Your task to perform on an android device: Check the news Image 0: 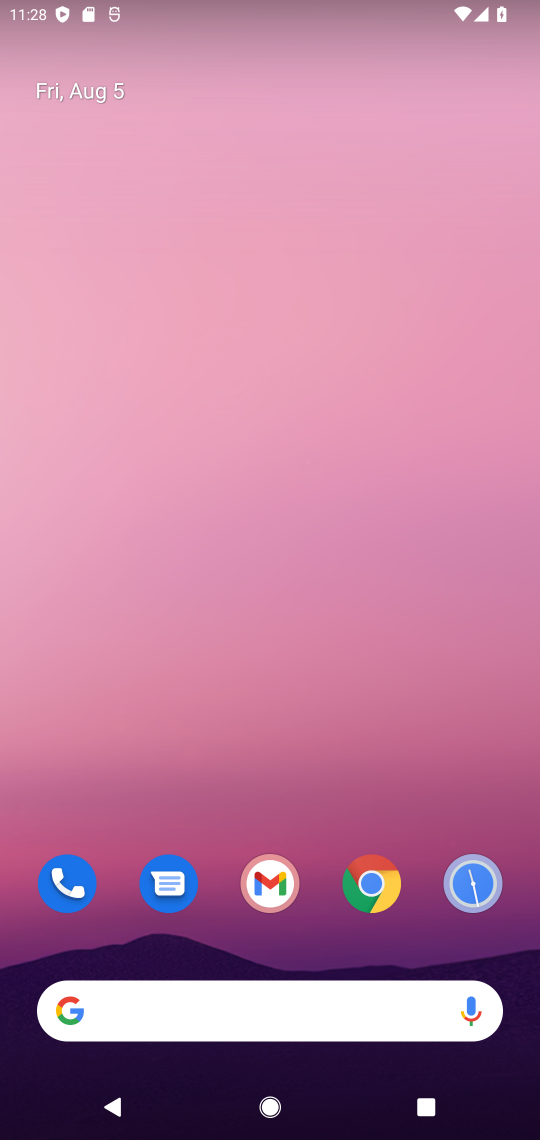
Step 0: click (289, 1013)
Your task to perform on an android device: Check the news Image 1: 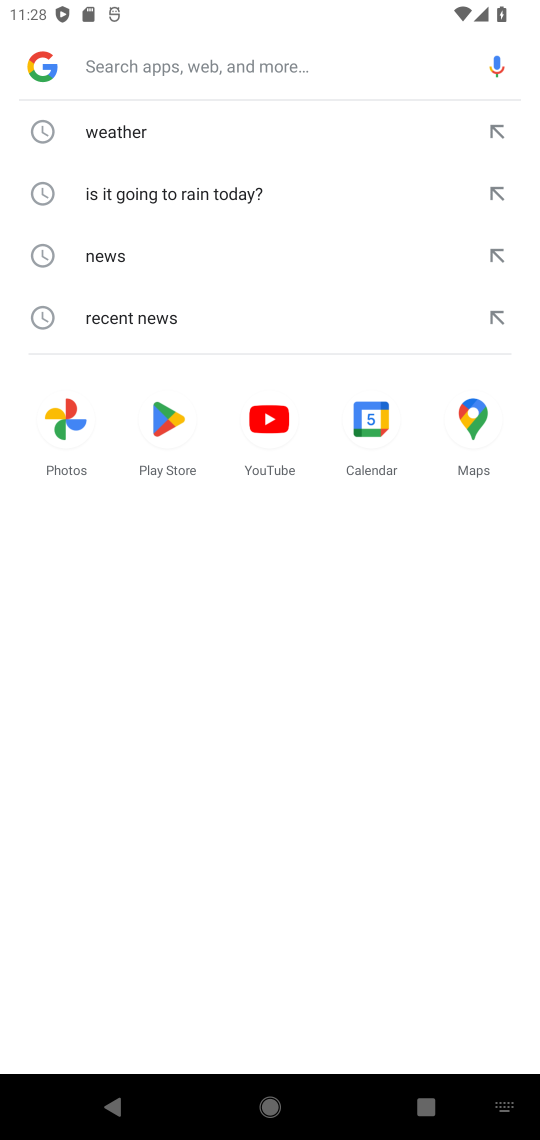
Step 1: click (141, 260)
Your task to perform on an android device: Check the news Image 2: 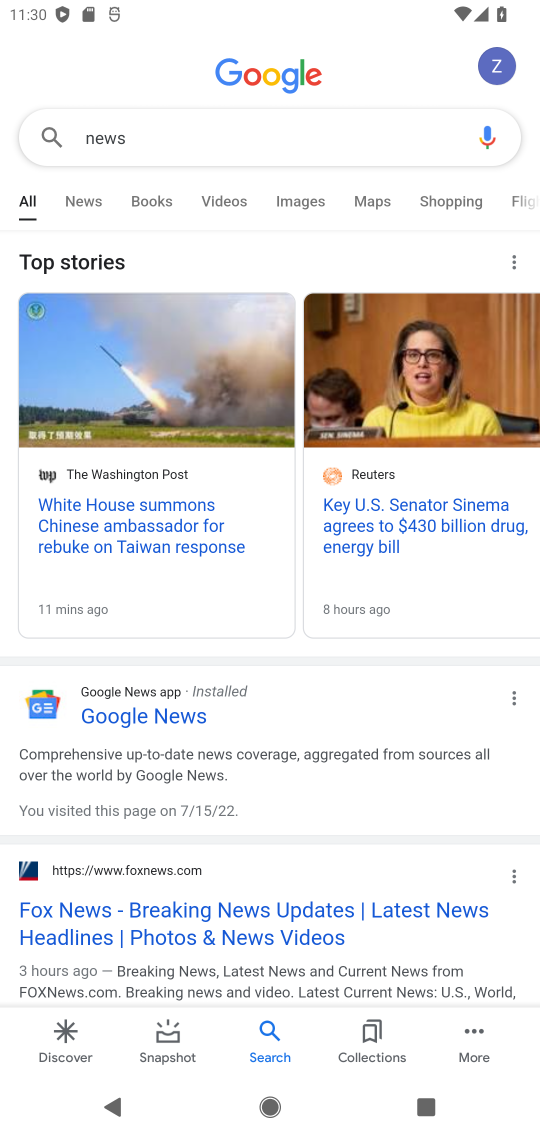
Step 2: task complete